Your task to perform on an android device: Do I have any events today? Image 0: 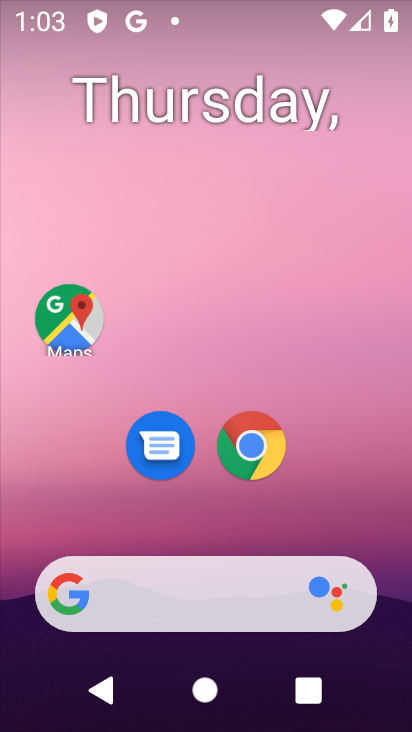
Step 0: drag from (198, 523) to (201, 219)
Your task to perform on an android device: Do I have any events today? Image 1: 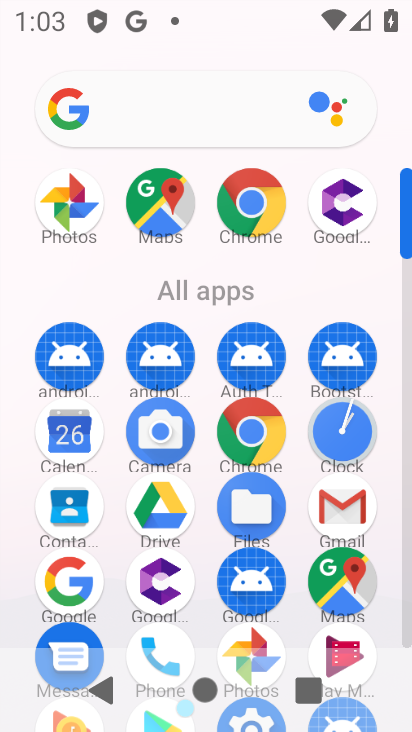
Step 1: drag from (206, 600) to (210, 227)
Your task to perform on an android device: Do I have any events today? Image 2: 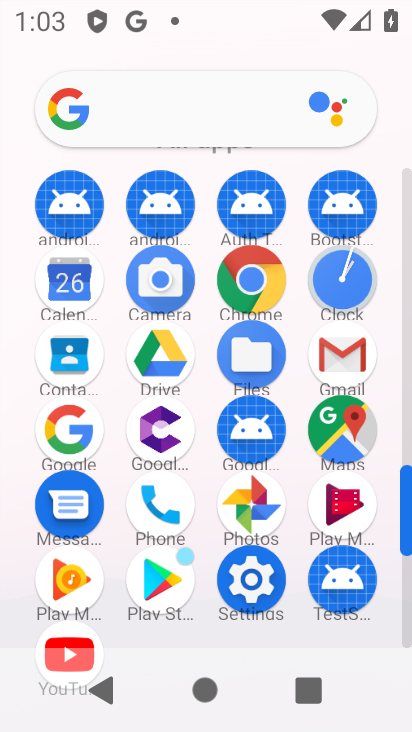
Step 2: click (73, 280)
Your task to perform on an android device: Do I have any events today? Image 3: 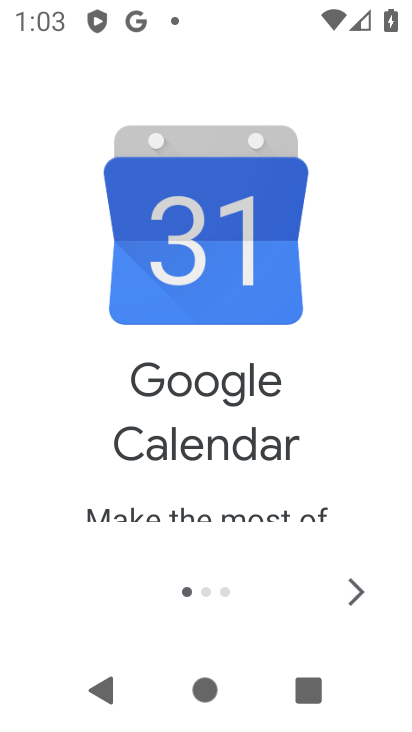
Step 3: click (357, 594)
Your task to perform on an android device: Do I have any events today? Image 4: 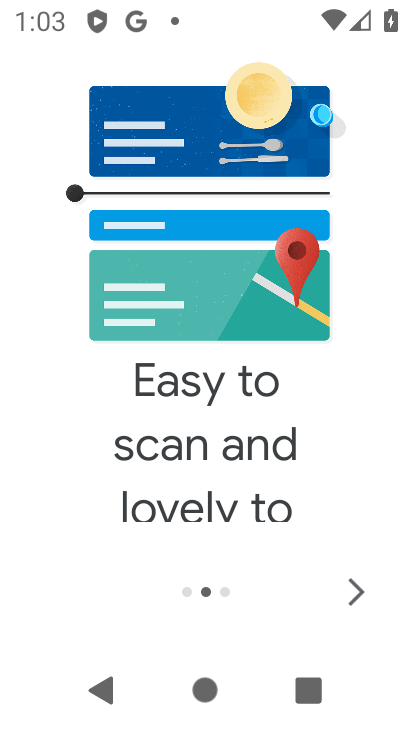
Step 4: click (355, 600)
Your task to perform on an android device: Do I have any events today? Image 5: 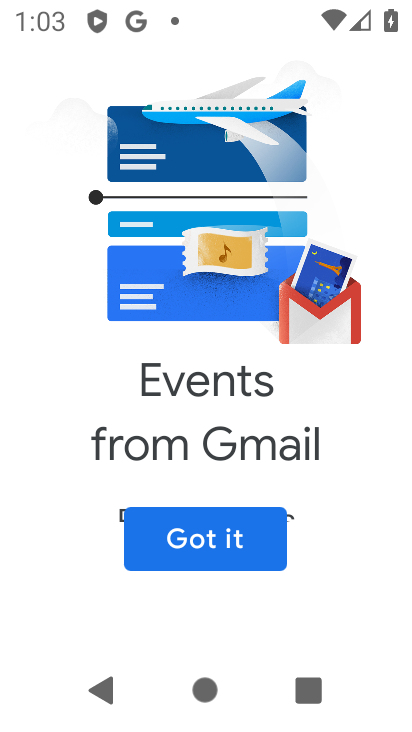
Step 5: click (216, 560)
Your task to perform on an android device: Do I have any events today? Image 6: 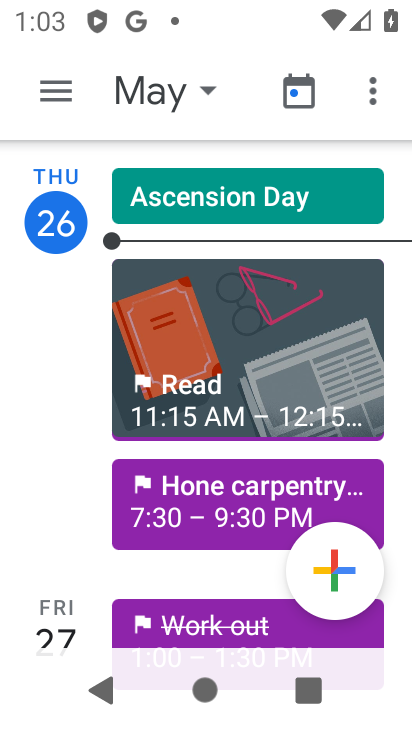
Step 6: click (188, 106)
Your task to perform on an android device: Do I have any events today? Image 7: 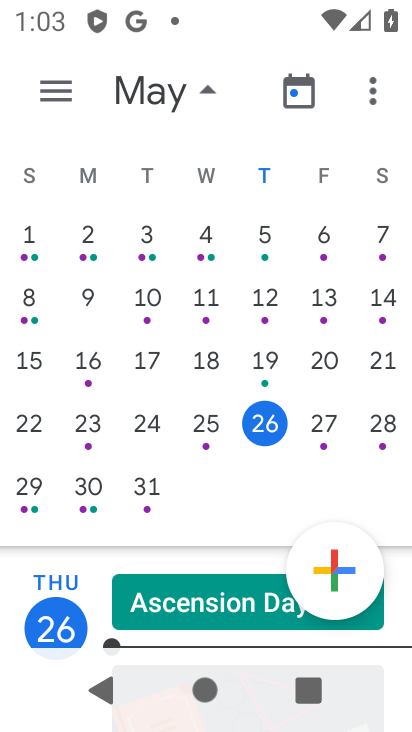
Step 7: click (233, 419)
Your task to perform on an android device: Do I have any events today? Image 8: 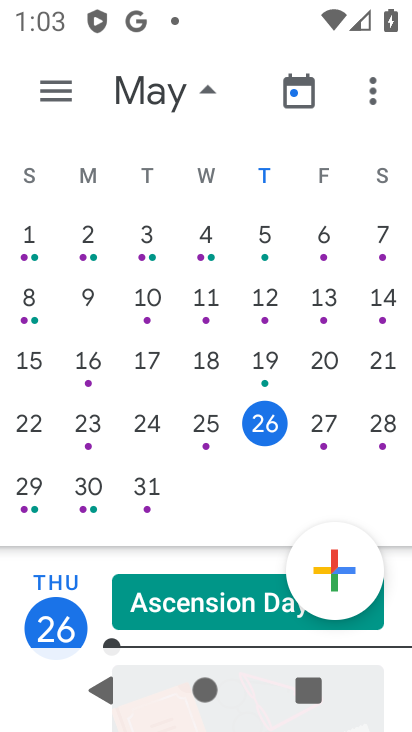
Step 8: click (258, 424)
Your task to perform on an android device: Do I have any events today? Image 9: 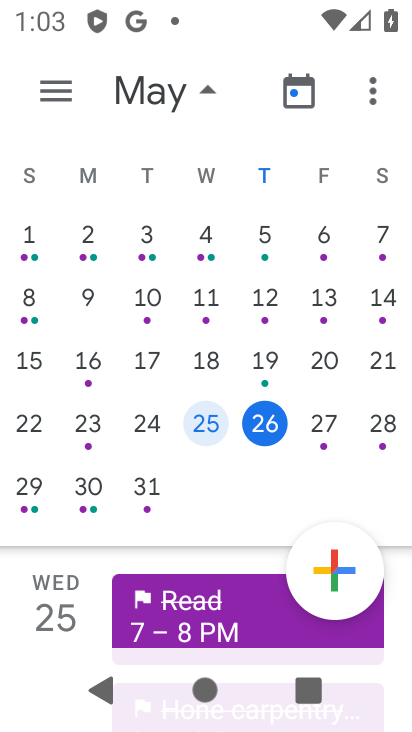
Step 9: click (259, 423)
Your task to perform on an android device: Do I have any events today? Image 10: 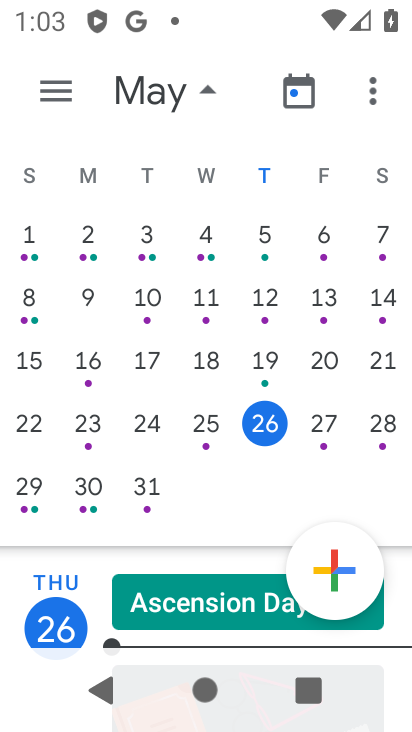
Step 10: task complete